Your task to perform on an android device: Go to Android settings Image 0: 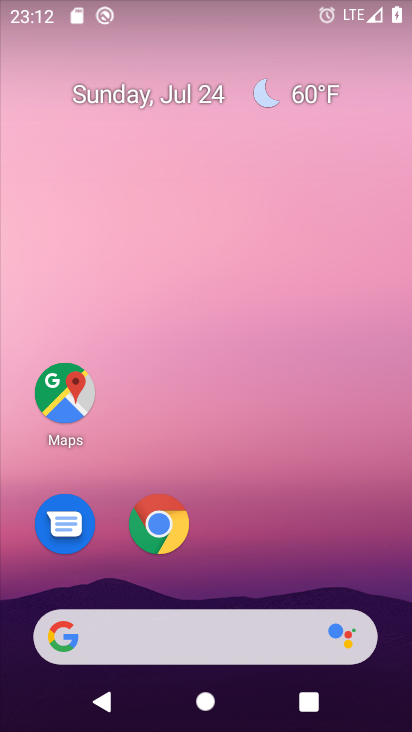
Step 0: drag from (280, 507) to (290, 51)
Your task to perform on an android device: Go to Android settings Image 1: 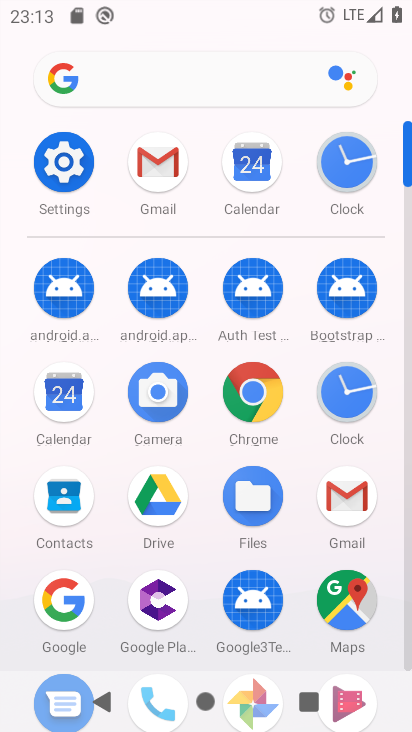
Step 1: click (67, 153)
Your task to perform on an android device: Go to Android settings Image 2: 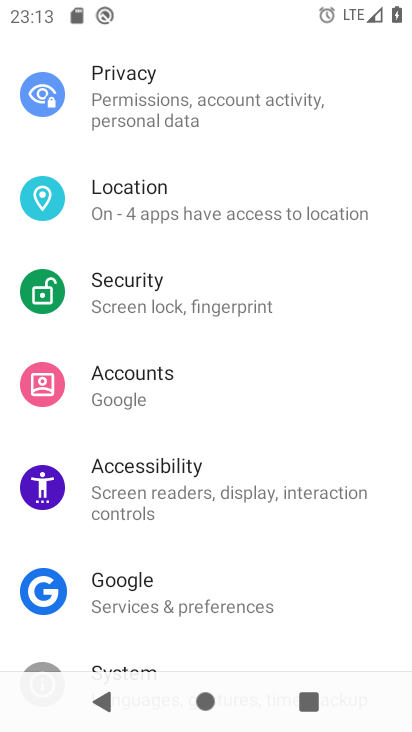
Step 2: drag from (276, 519) to (274, 152)
Your task to perform on an android device: Go to Android settings Image 3: 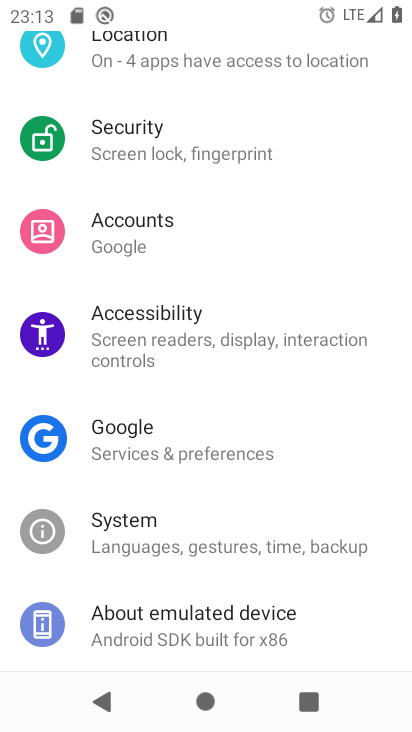
Step 3: click (236, 601)
Your task to perform on an android device: Go to Android settings Image 4: 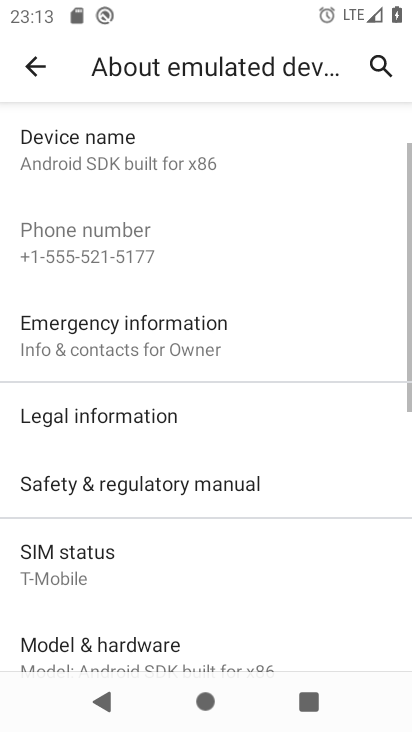
Step 4: task complete